Your task to perform on an android device: Open Google Image 0: 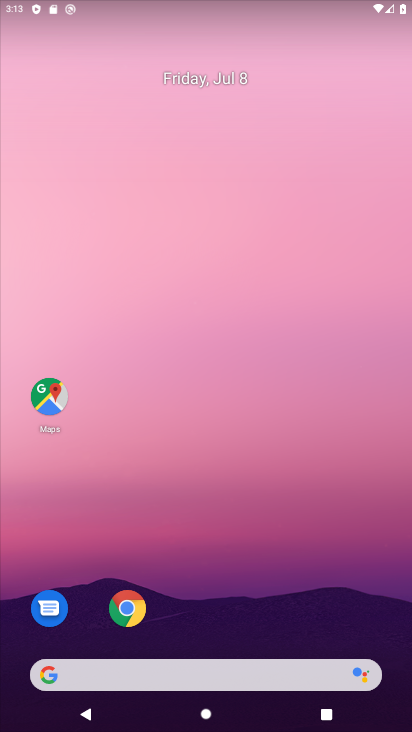
Step 0: drag from (232, 564) to (224, 82)
Your task to perform on an android device: Open Google Image 1: 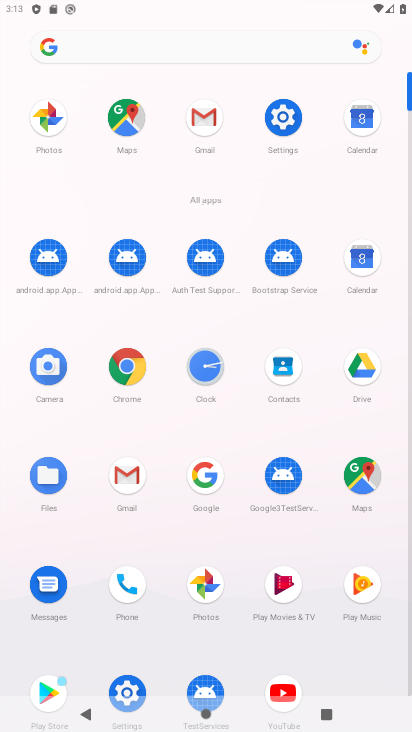
Step 1: drag from (284, 520) to (288, 57)
Your task to perform on an android device: Open Google Image 2: 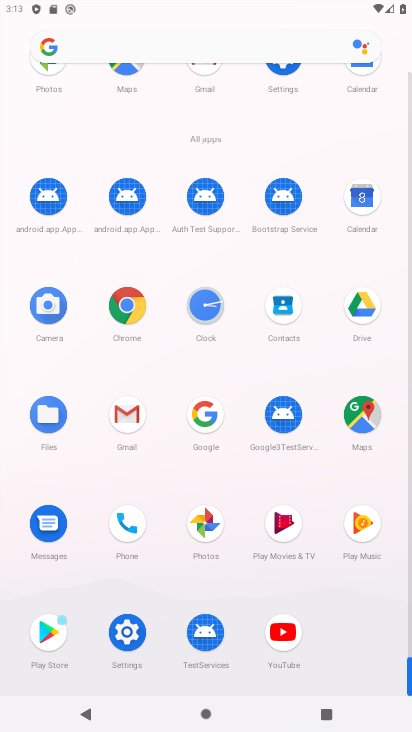
Step 2: click (195, 420)
Your task to perform on an android device: Open Google Image 3: 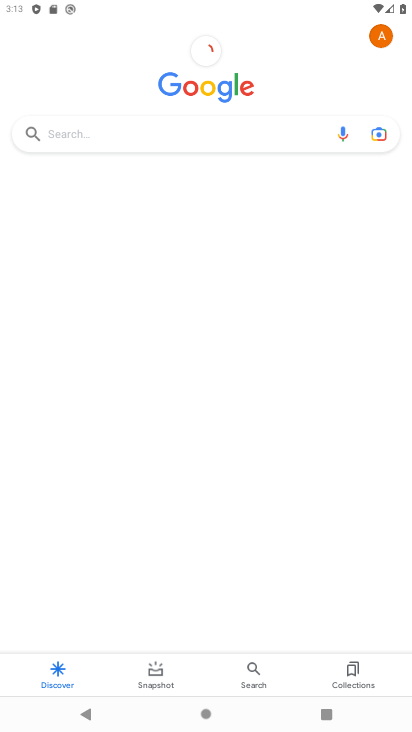
Step 3: task complete